Your task to perform on an android device: See recent photos Image 0: 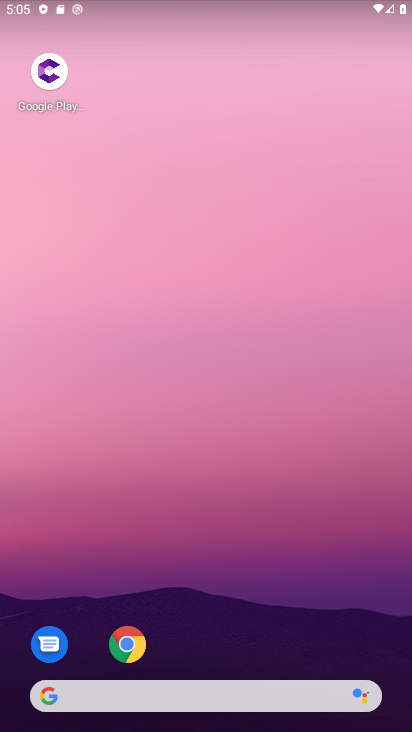
Step 0: drag from (319, 573) to (9, 338)
Your task to perform on an android device: See recent photos Image 1: 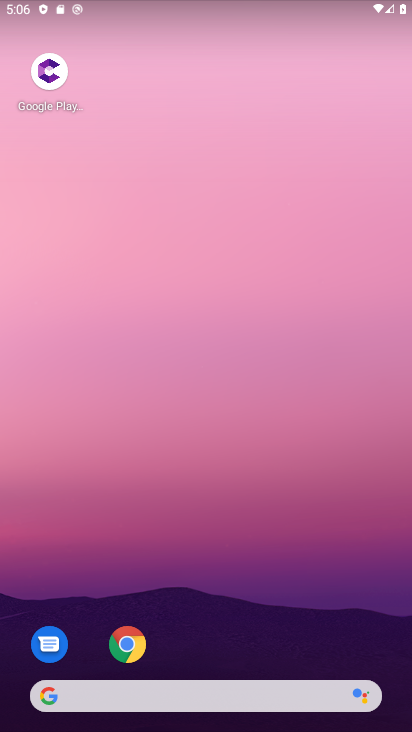
Step 1: drag from (282, 629) to (303, 160)
Your task to perform on an android device: See recent photos Image 2: 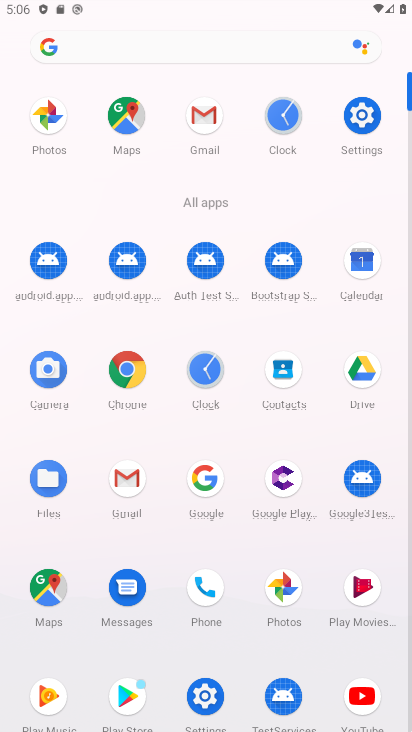
Step 2: click (57, 115)
Your task to perform on an android device: See recent photos Image 3: 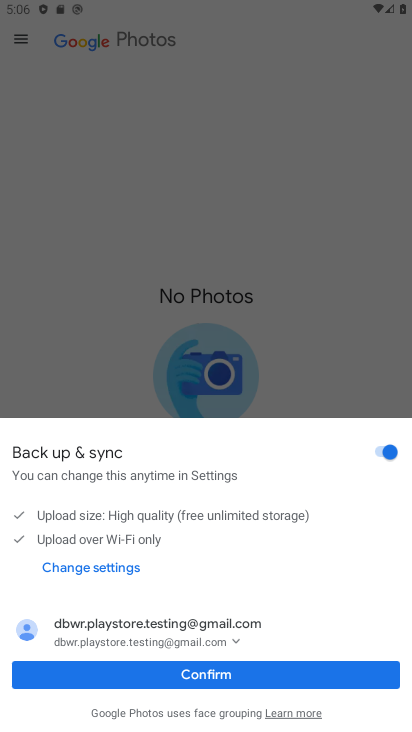
Step 3: click (180, 685)
Your task to perform on an android device: See recent photos Image 4: 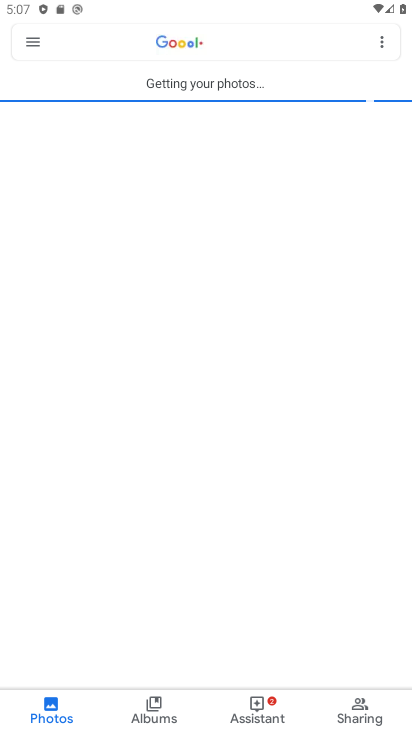
Step 4: click (68, 705)
Your task to perform on an android device: See recent photos Image 5: 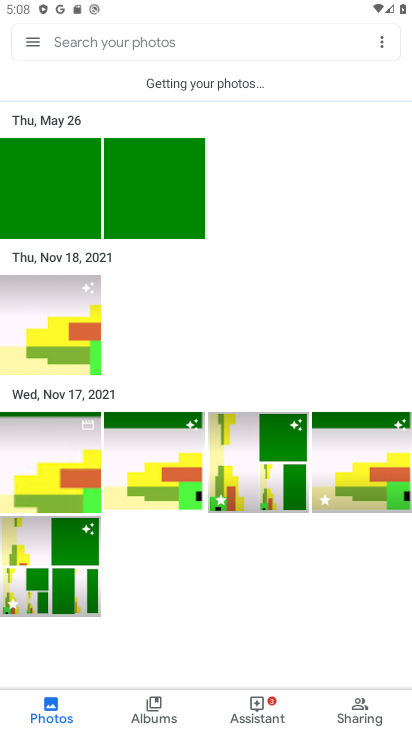
Step 5: task complete